Your task to perform on an android device: Open CNN.com Image 0: 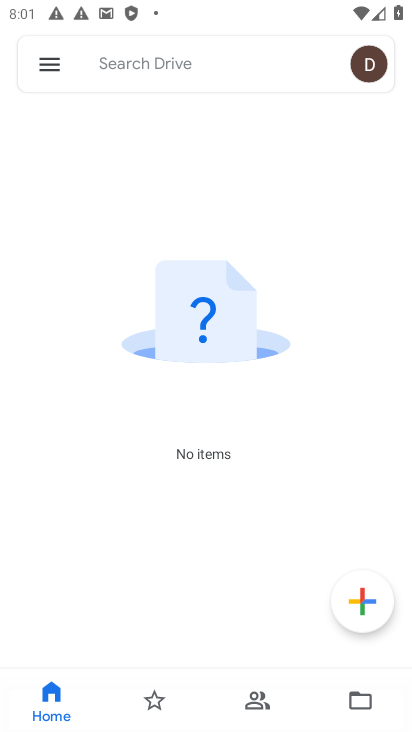
Step 0: press home button
Your task to perform on an android device: Open CNN.com Image 1: 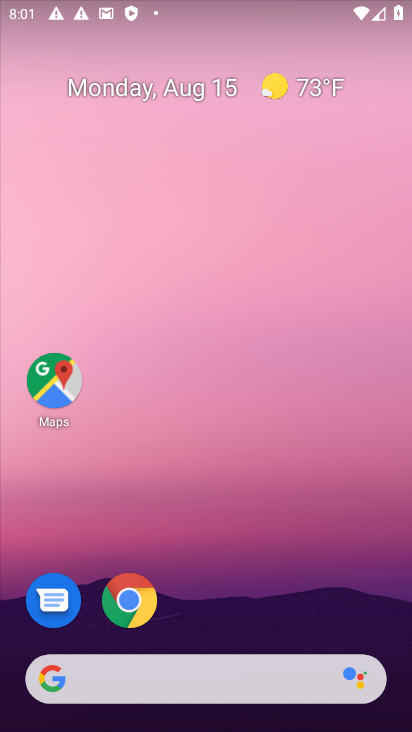
Step 1: click (136, 600)
Your task to perform on an android device: Open CNN.com Image 2: 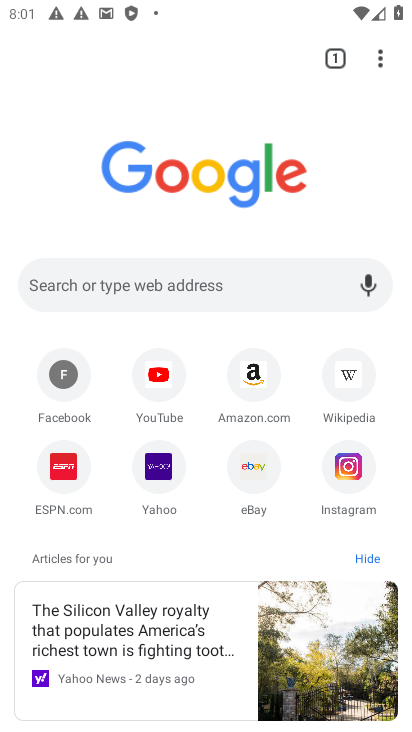
Step 2: click (254, 283)
Your task to perform on an android device: Open CNN.com Image 3: 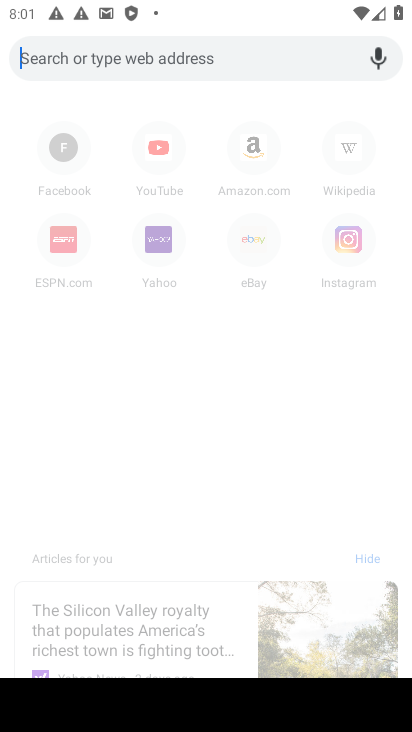
Step 3: type "CNN.com"
Your task to perform on an android device: Open CNN.com Image 4: 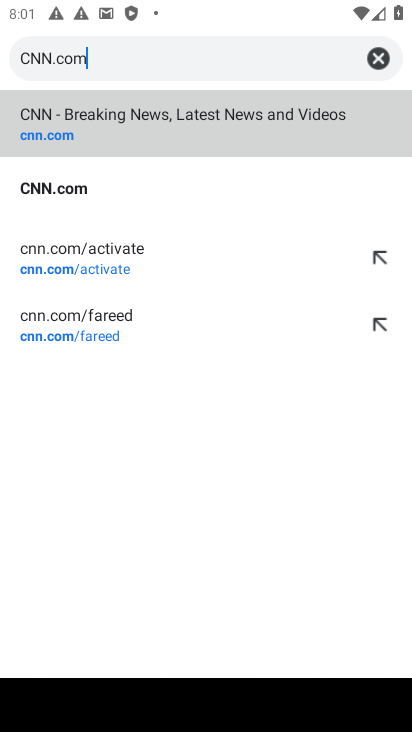
Step 4: click (78, 126)
Your task to perform on an android device: Open CNN.com Image 5: 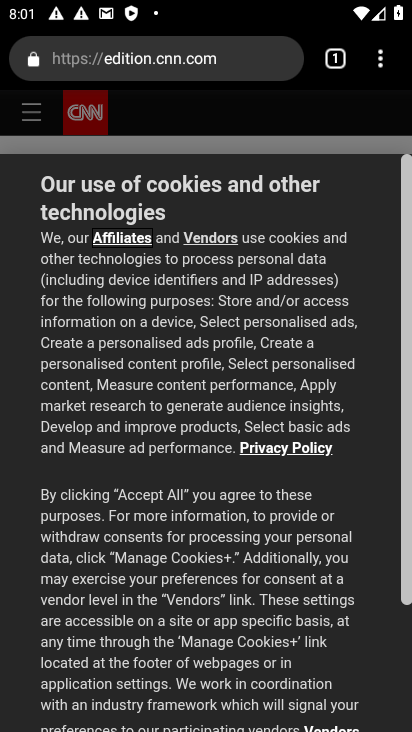
Step 5: task complete